Your task to perform on an android device: Search for bose quietcomfort 35 on newegg, select the first entry, add it to the cart, then select checkout. Image 0: 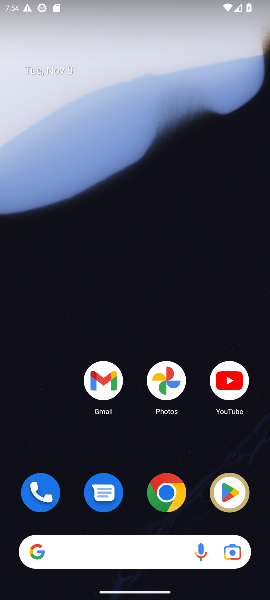
Step 0: click (173, 495)
Your task to perform on an android device: Search for bose quietcomfort 35 on newegg, select the first entry, add it to the cart, then select checkout. Image 1: 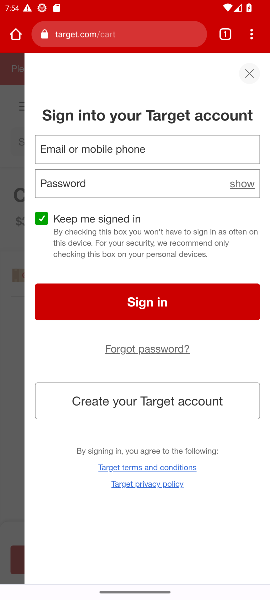
Step 1: click (76, 37)
Your task to perform on an android device: Search for bose quietcomfort 35 on newegg, select the first entry, add it to the cart, then select checkout. Image 2: 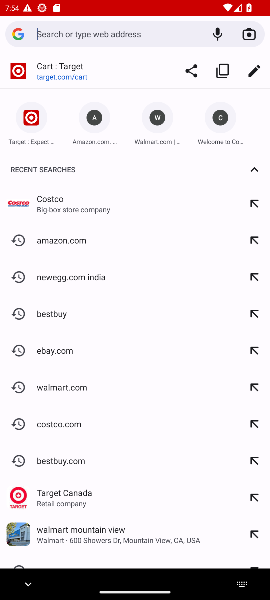
Step 2: type "newegg"
Your task to perform on an android device: Search for bose quietcomfort 35 on newegg, select the first entry, add it to the cart, then select checkout. Image 3: 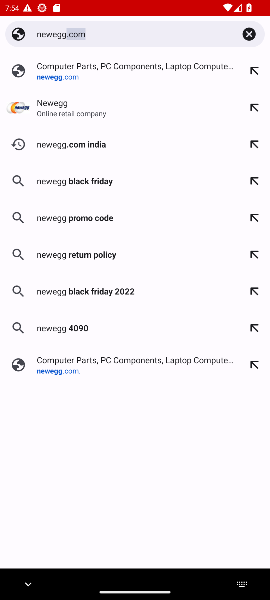
Step 3: click (104, 72)
Your task to perform on an android device: Search for bose quietcomfort 35 on newegg, select the first entry, add it to the cart, then select checkout. Image 4: 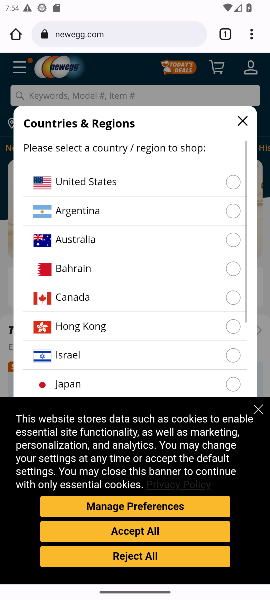
Step 4: click (140, 535)
Your task to perform on an android device: Search for bose quietcomfort 35 on newegg, select the first entry, add it to the cart, then select checkout. Image 5: 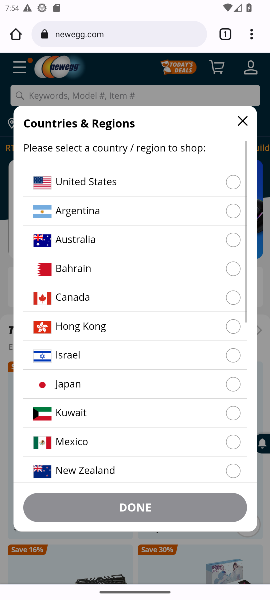
Step 5: click (226, 188)
Your task to perform on an android device: Search for bose quietcomfort 35 on newegg, select the first entry, add it to the cart, then select checkout. Image 6: 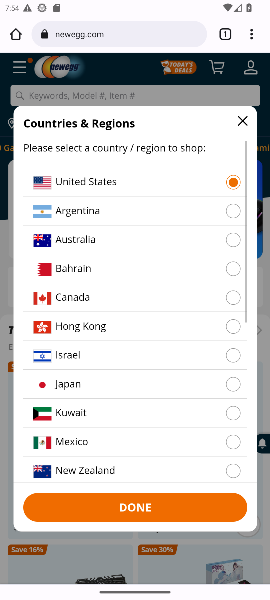
Step 6: click (132, 507)
Your task to perform on an android device: Search for bose quietcomfort 35 on newegg, select the first entry, add it to the cart, then select checkout. Image 7: 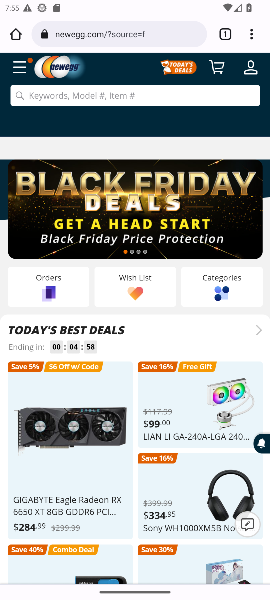
Step 7: click (58, 90)
Your task to perform on an android device: Search for bose quietcomfort 35 on newegg, select the first entry, add it to the cart, then select checkout. Image 8: 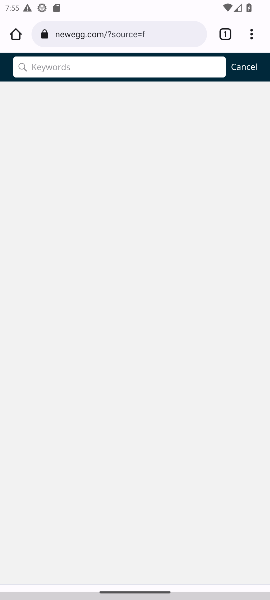
Step 8: click (58, 96)
Your task to perform on an android device: Search for bose quietcomfort 35 on newegg, select the first entry, add it to the cart, then select checkout. Image 9: 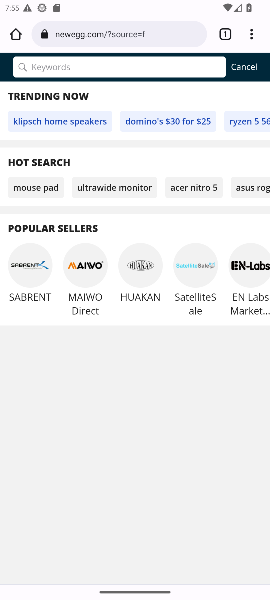
Step 9: type "bose quietcomfort 35"
Your task to perform on an android device: Search for bose quietcomfort 35 on newegg, select the first entry, add it to the cart, then select checkout. Image 10: 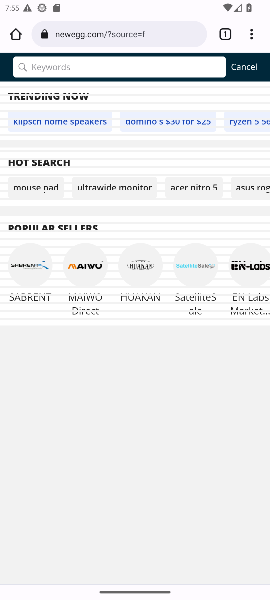
Step 10: click (130, 70)
Your task to perform on an android device: Search for bose quietcomfort 35 on newegg, select the first entry, add it to the cart, then select checkout. Image 11: 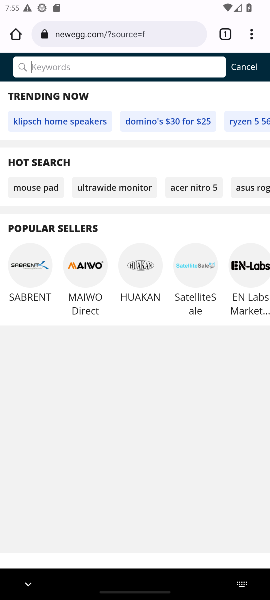
Step 11: drag from (268, 221) to (130, 70)
Your task to perform on an android device: Search for bose quietcomfort 35 on newegg, select the first entry, add it to the cart, then select checkout. Image 12: 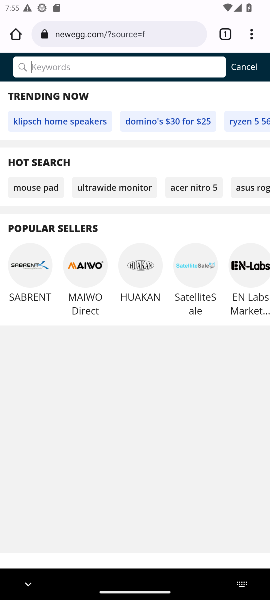
Step 12: type "bose quietcomfort 35"
Your task to perform on an android device: Search for bose quietcomfort 35 on newegg, select the first entry, add it to the cart, then select checkout. Image 13: 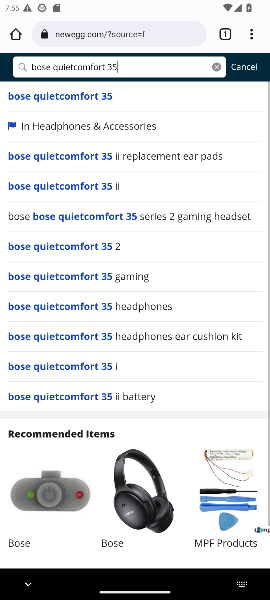
Step 13: press enter
Your task to perform on an android device: Search for bose quietcomfort 35 on newegg, select the first entry, add it to the cart, then select checkout. Image 14: 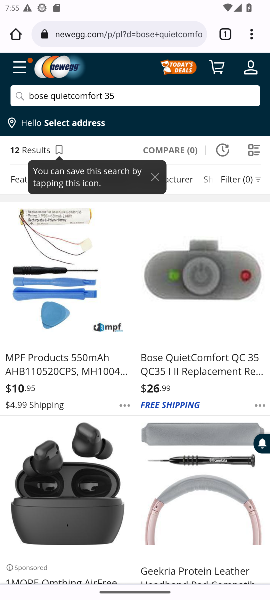
Step 14: drag from (197, 426) to (194, 350)
Your task to perform on an android device: Search for bose quietcomfort 35 on newegg, select the first entry, add it to the cart, then select checkout. Image 15: 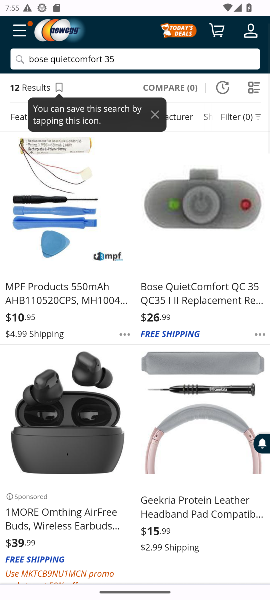
Step 15: click (207, 301)
Your task to perform on an android device: Search for bose quietcomfort 35 on newegg, select the first entry, add it to the cart, then select checkout. Image 16: 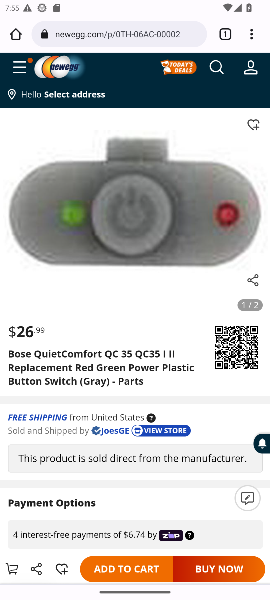
Step 16: drag from (210, 433) to (215, 147)
Your task to perform on an android device: Search for bose quietcomfort 35 on newegg, select the first entry, add it to the cart, then select checkout. Image 17: 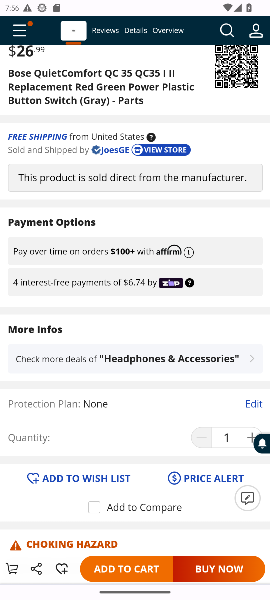
Step 17: click (137, 564)
Your task to perform on an android device: Search for bose quietcomfort 35 on newegg, select the first entry, add it to the cart, then select checkout. Image 18: 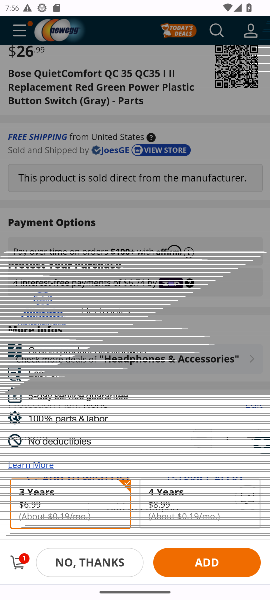
Step 18: click (205, 573)
Your task to perform on an android device: Search for bose quietcomfort 35 on newegg, select the first entry, add it to the cart, then select checkout. Image 19: 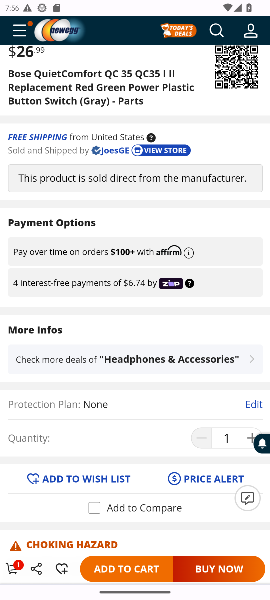
Step 19: click (18, 28)
Your task to perform on an android device: Search for bose quietcomfort 35 on newegg, select the first entry, add it to the cart, then select checkout. Image 20: 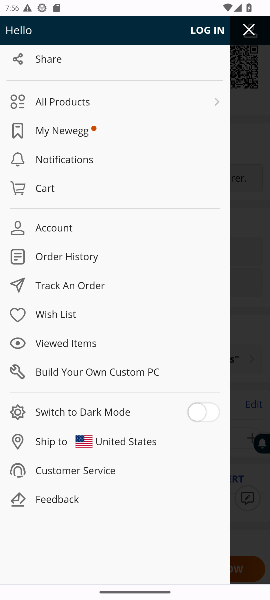
Step 20: click (45, 186)
Your task to perform on an android device: Search for bose quietcomfort 35 on newegg, select the first entry, add it to the cart, then select checkout. Image 21: 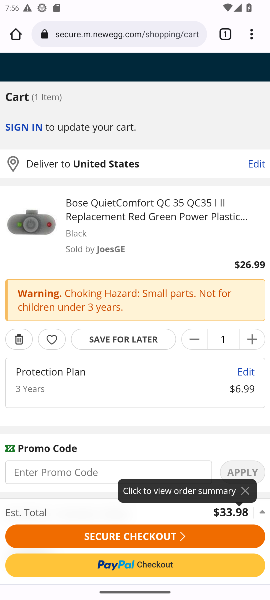
Step 21: click (134, 539)
Your task to perform on an android device: Search for bose quietcomfort 35 on newegg, select the first entry, add it to the cart, then select checkout. Image 22: 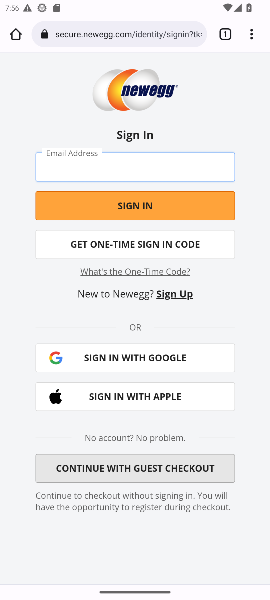
Step 22: task complete